Your task to perform on an android device: open app "Chime – Mobile Banking" Image 0: 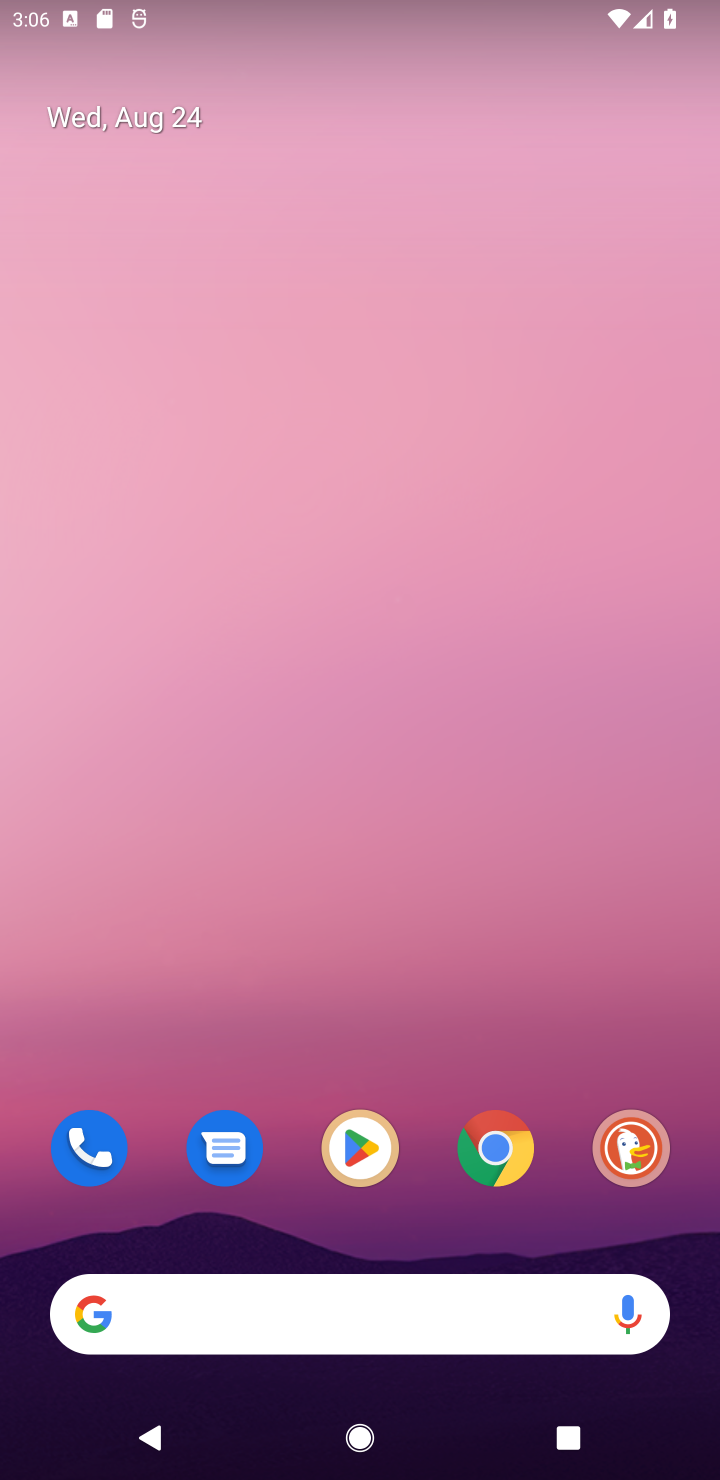
Step 0: drag from (289, 1108) to (462, 90)
Your task to perform on an android device: open app "Chime – Mobile Banking" Image 1: 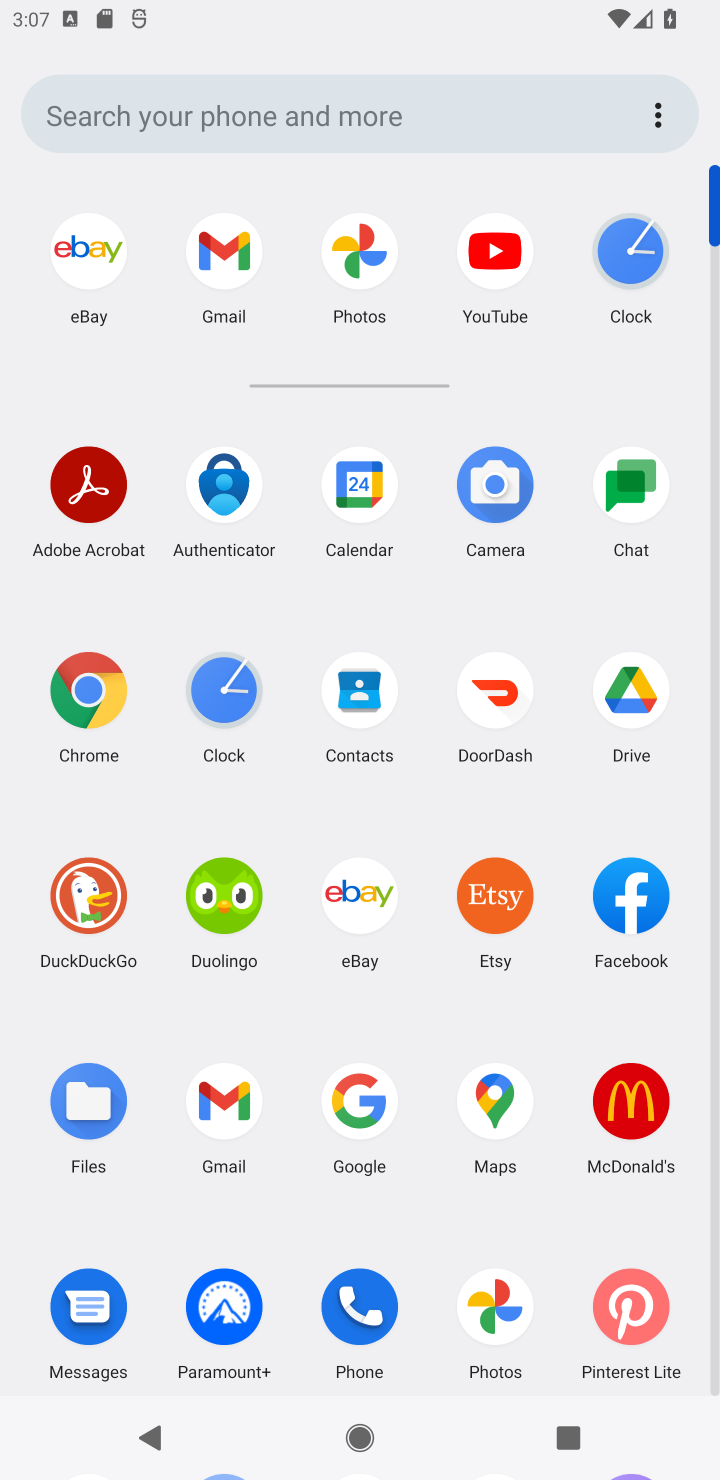
Step 1: drag from (322, 1187) to (447, 232)
Your task to perform on an android device: open app "Chime – Mobile Banking" Image 2: 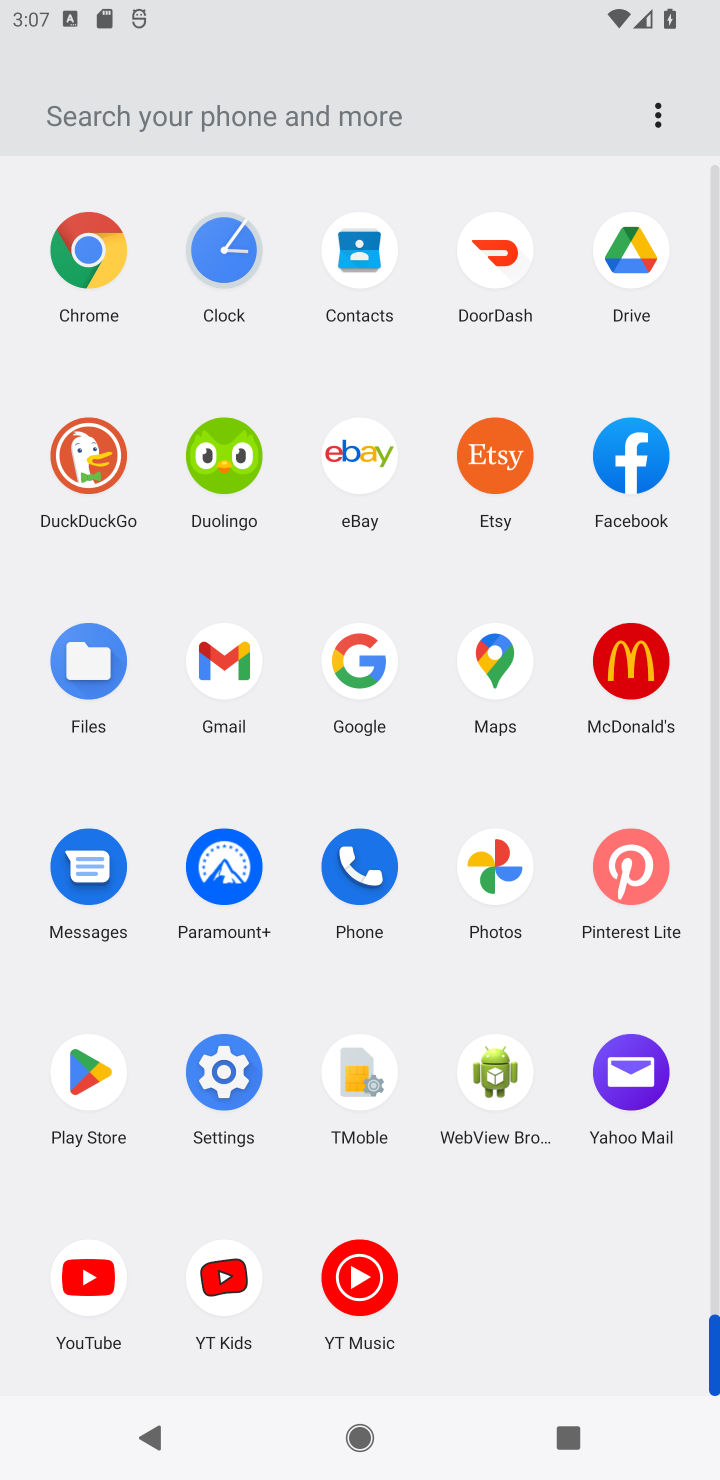
Step 2: click (80, 1304)
Your task to perform on an android device: open app "Chime – Mobile Banking" Image 3: 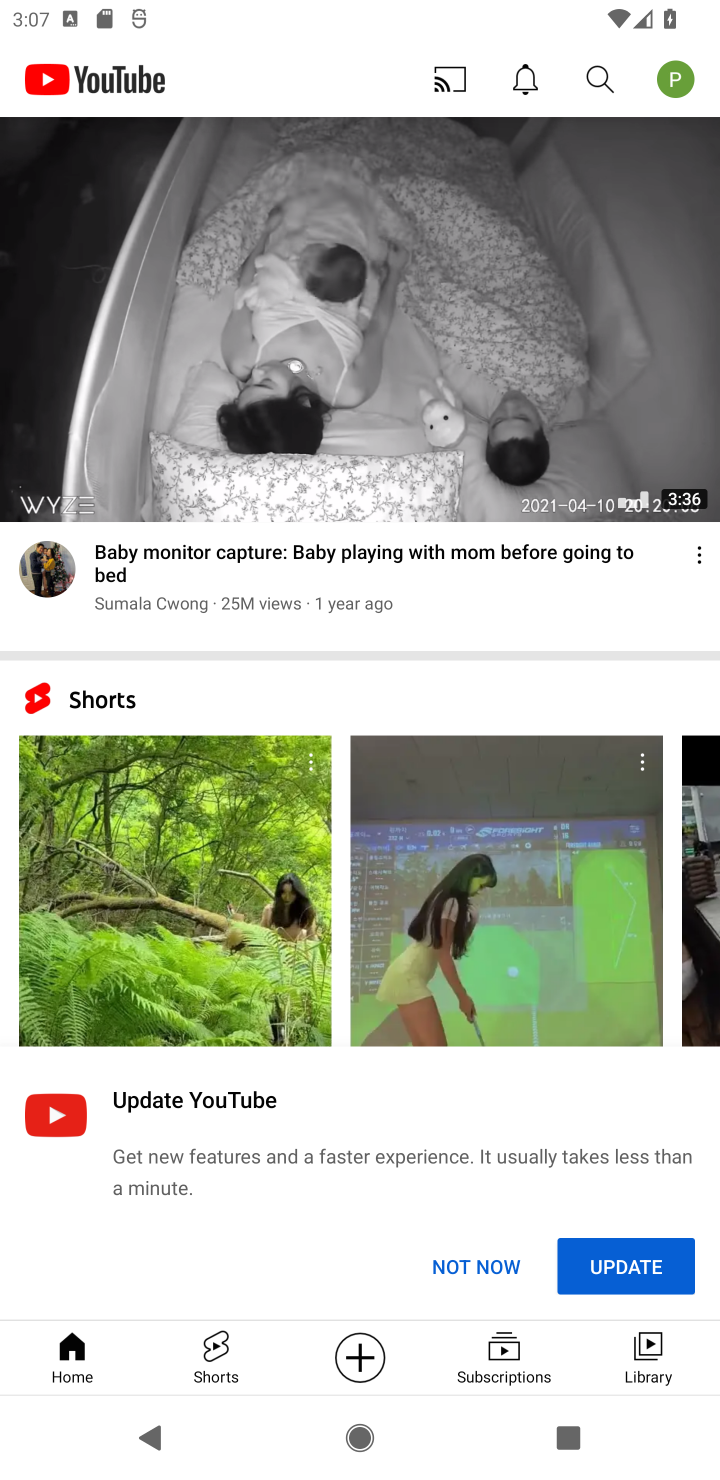
Step 3: press home button
Your task to perform on an android device: open app "Chime – Mobile Banking" Image 4: 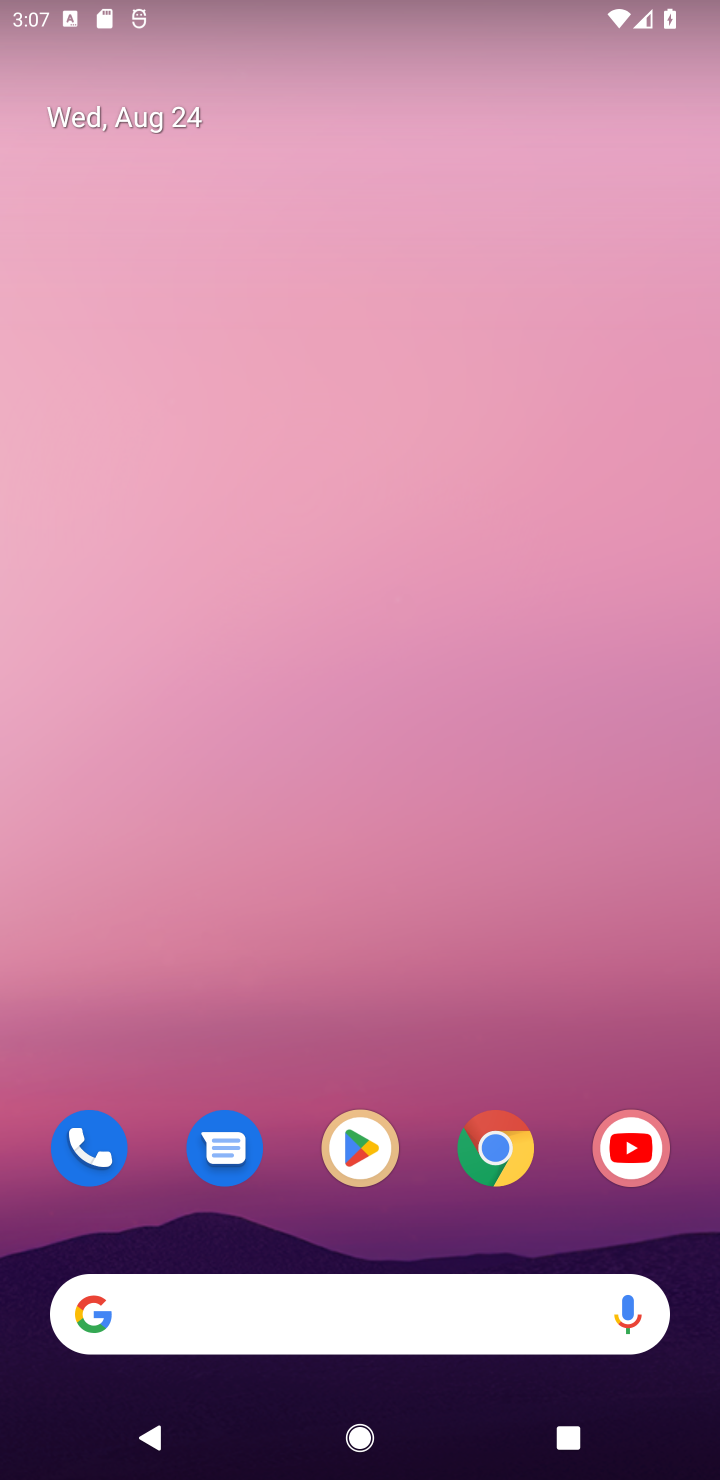
Step 4: click (353, 1149)
Your task to perform on an android device: open app "Chime – Mobile Banking" Image 5: 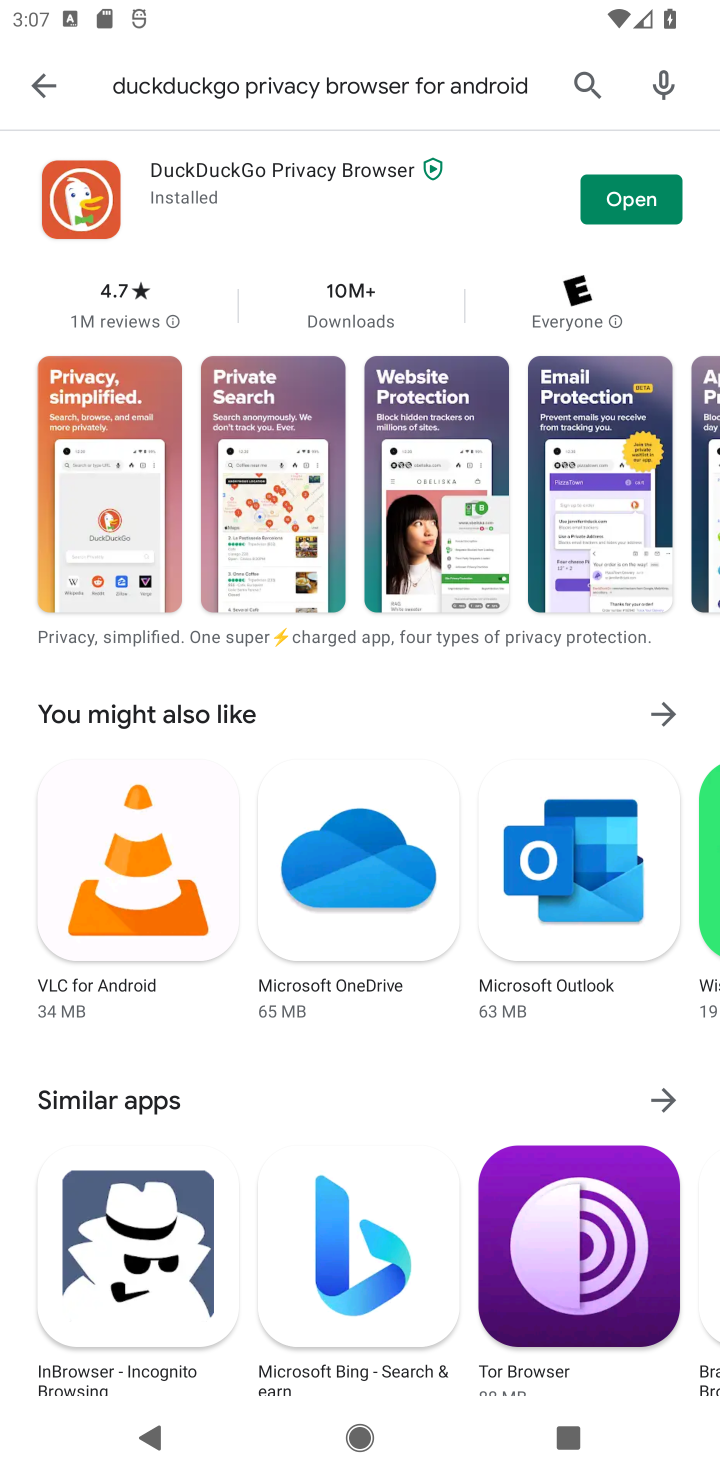
Step 5: click (43, 88)
Your task to perform on an android device: open app "Chime – Mobile Banking" Image 6: 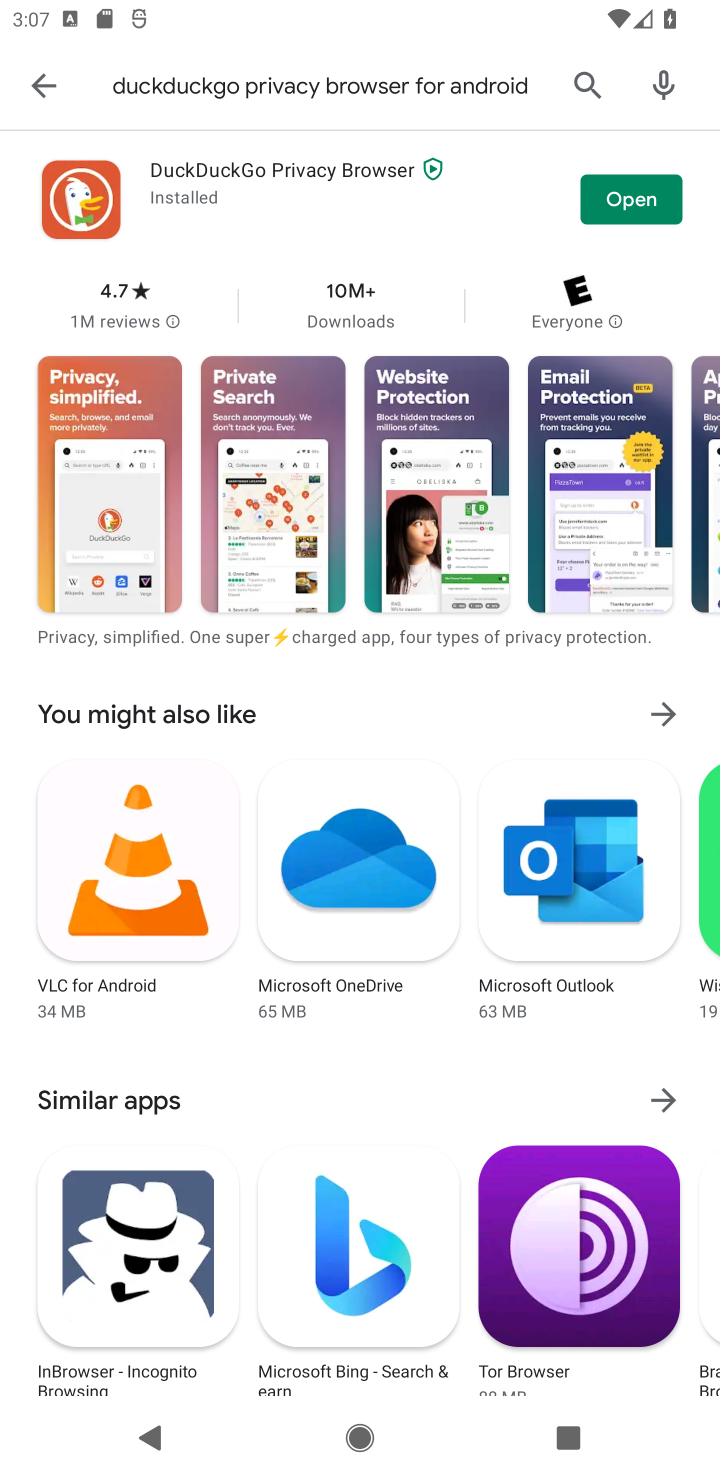
Step 6: click (586, 65)
Your task to perform on an android device: open app "Chime – Mobile Banking" Image 7: 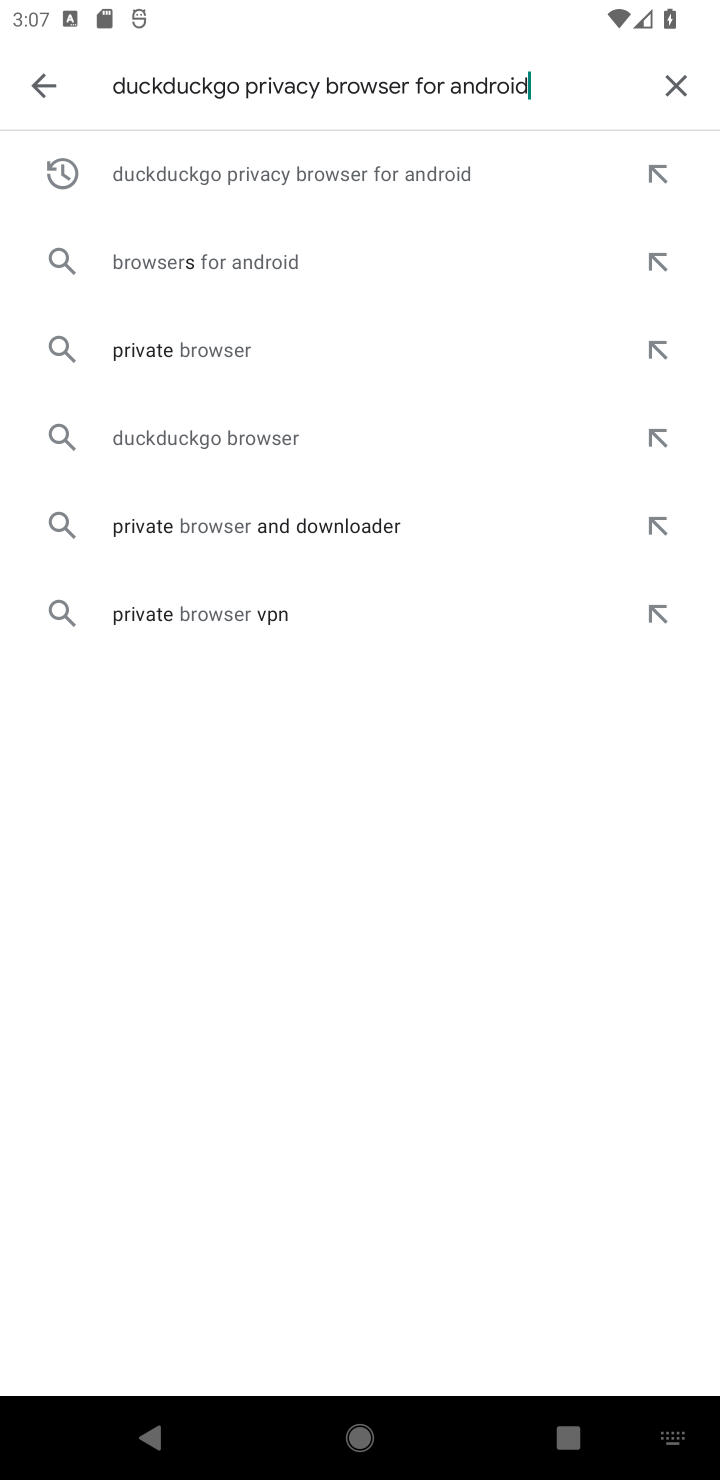
Step 7: click (674, 92)
Your task to perform on an android device: open app "Chime – Mobile Banking" Image 8: 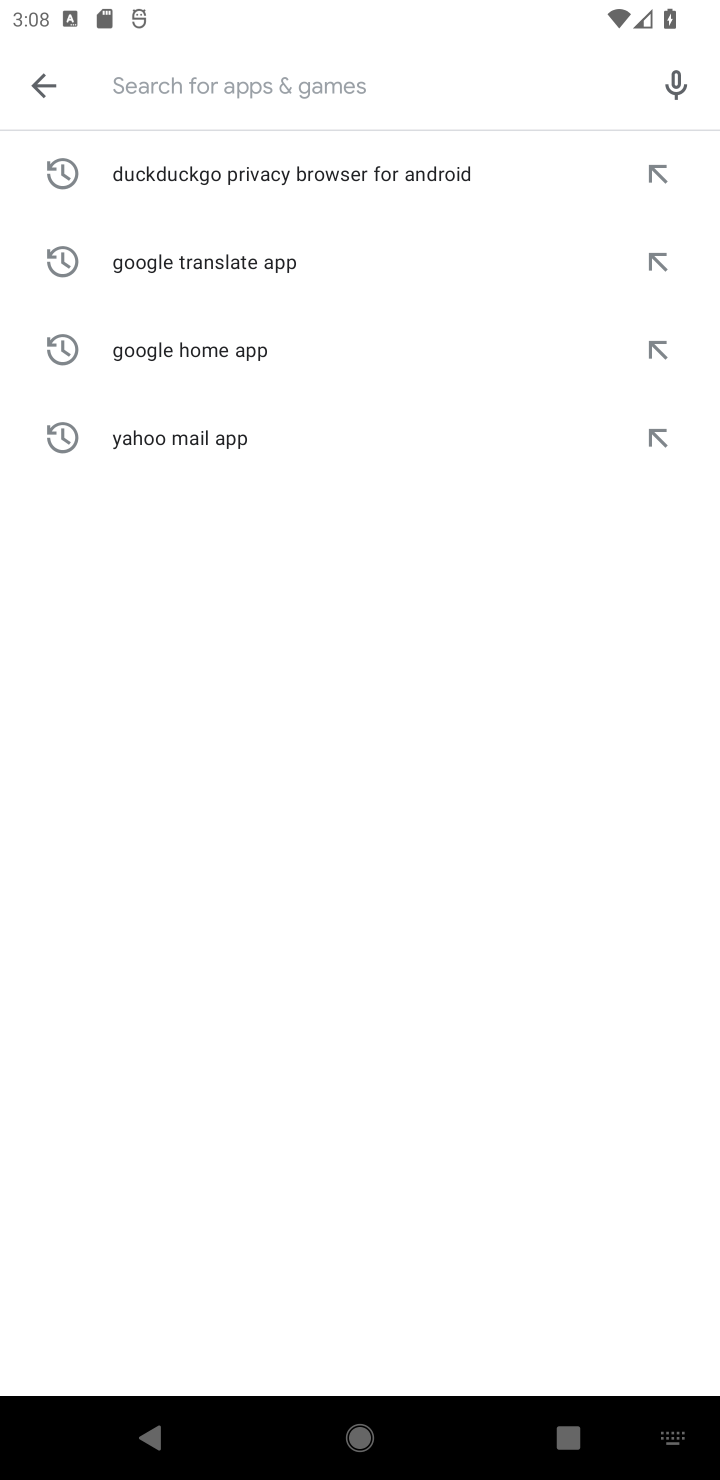
Step 8: click (311, 83)
Your task to perform on an android device: open app "Chime – Mobile Banking" Image 9: 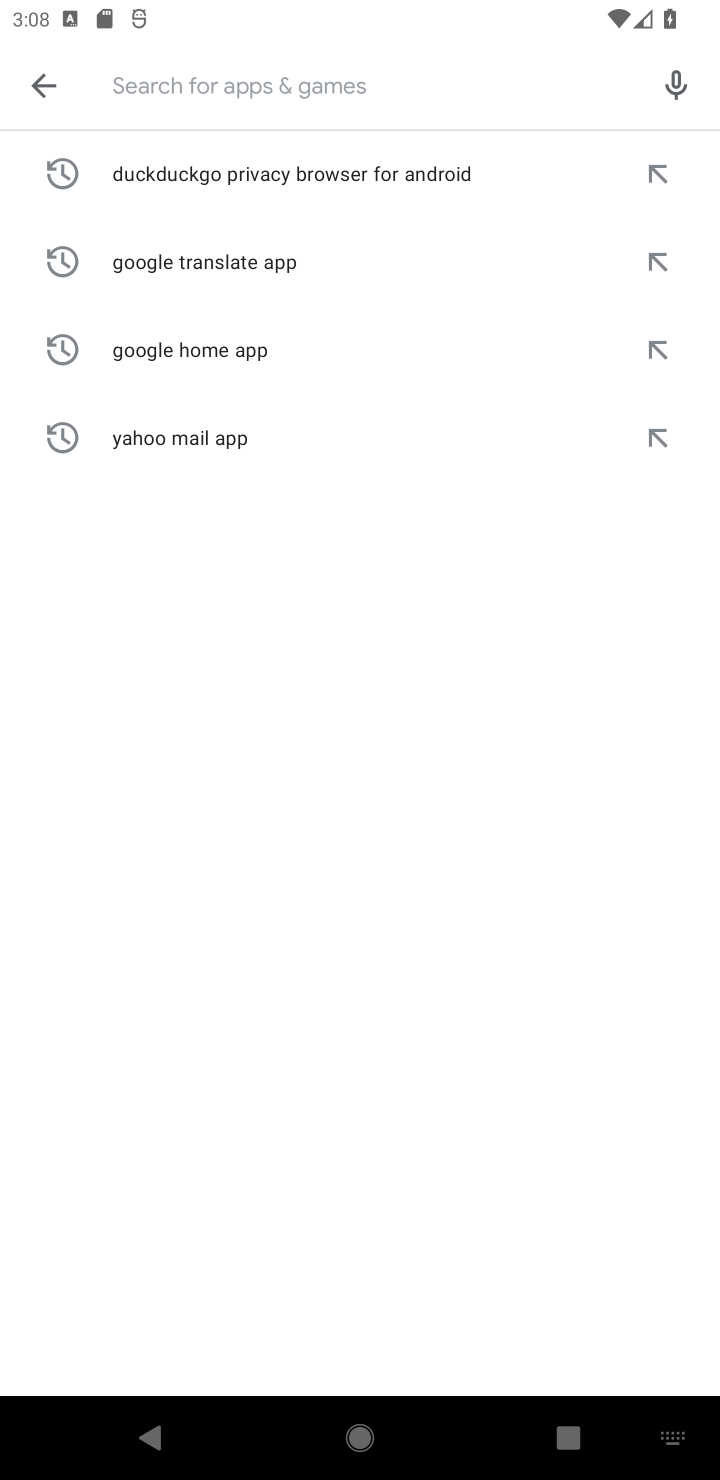
Step 9: type "Chime  "
Your task to perform on an android device: open app "Chime – Mobile Banking" Image 10: 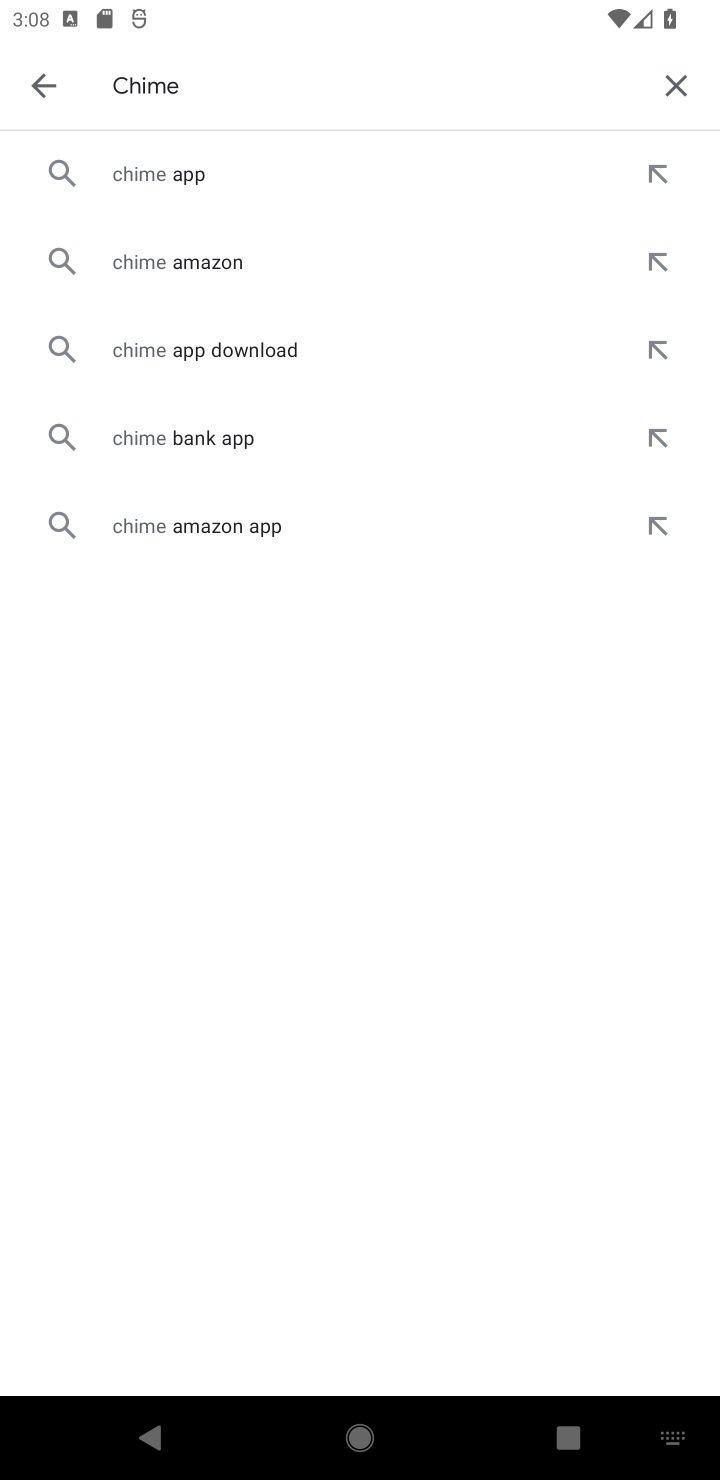
Step 10: click (192, 184)
Your task to perform on an android device: open app "Chime – Mobile Banking" Image 11: 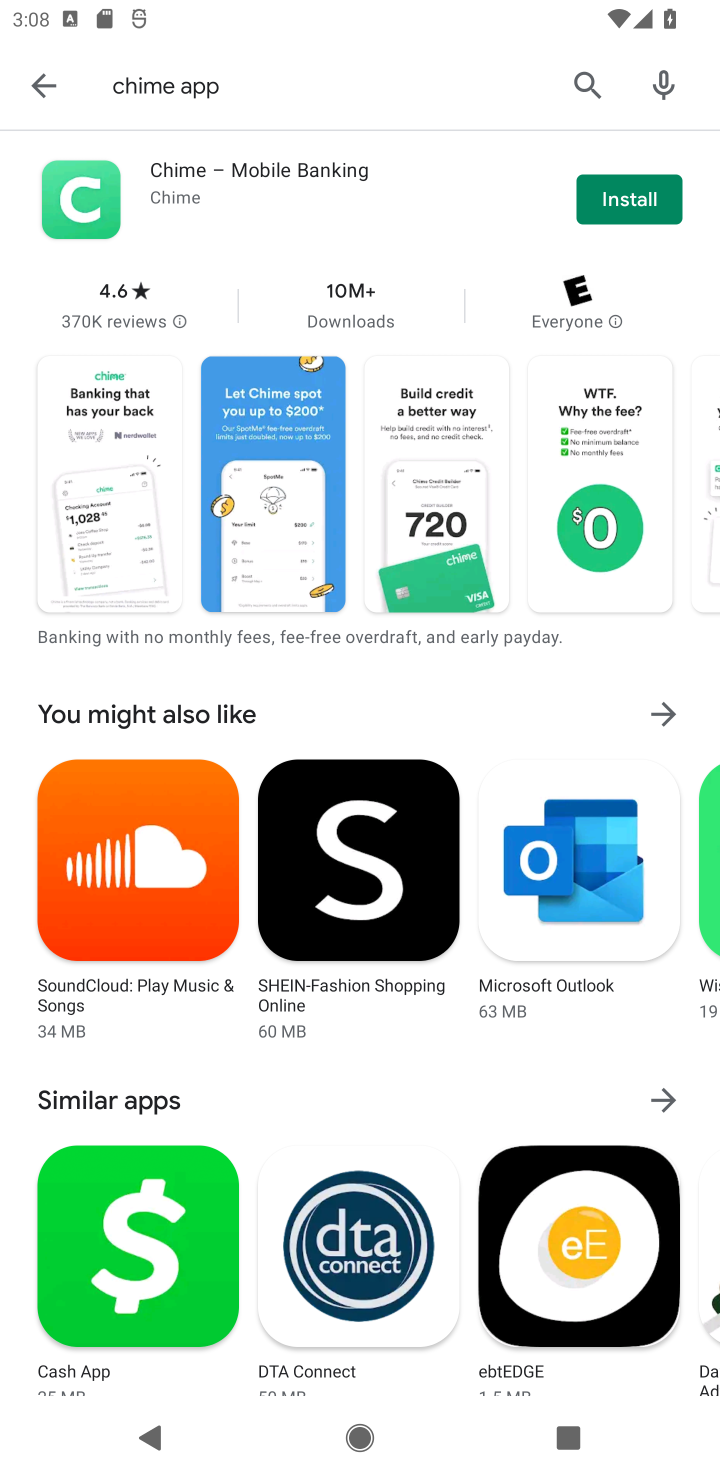
Step 11: click (618, 193)
Your task to perform on an android device: open app "Chime – Mobile Banking" Image 12: 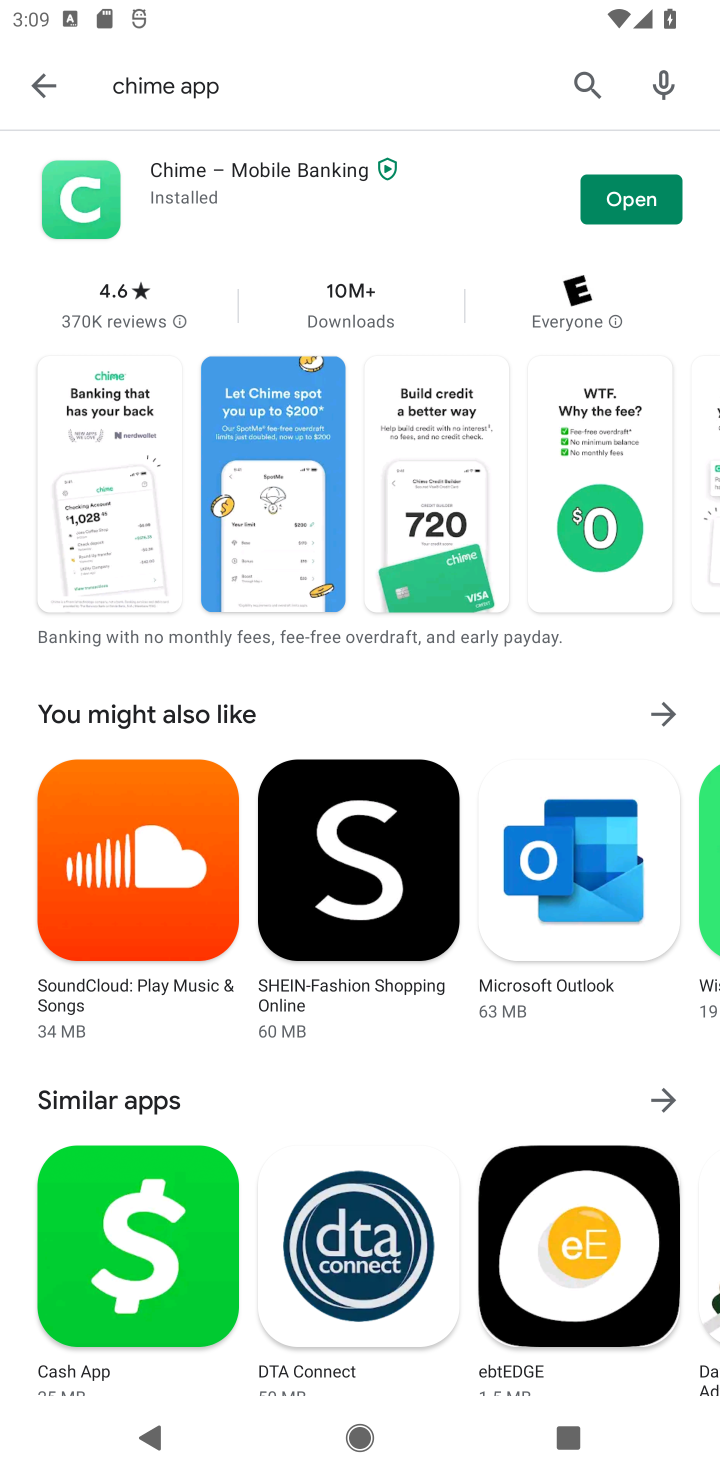
Step 12: task complete